Your task to perform on an android device: Go to network settings Image 0: 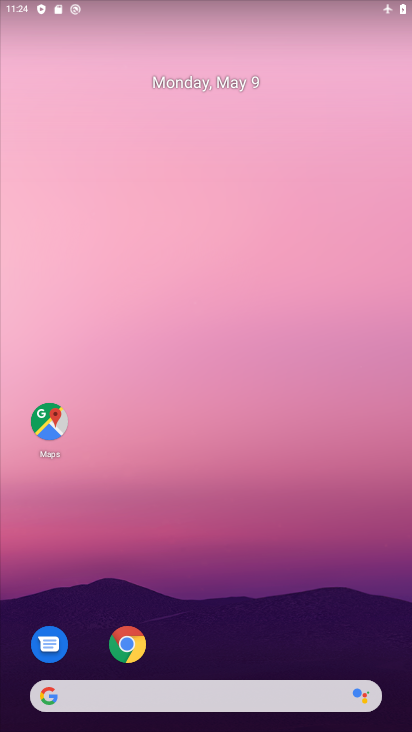
Step 0: drag from (227, 621) to (250, 186)
Your task to perform on an android device: Go to network settings Image 1: 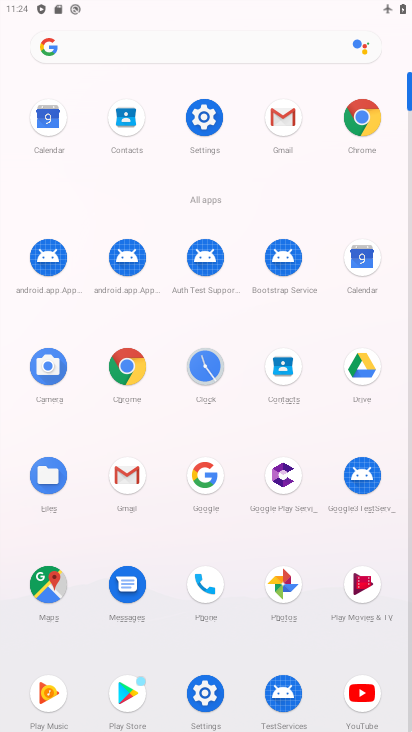
Step 1: click (216, 122)
Your task to perform on an android device: Go to network settings Image 2: 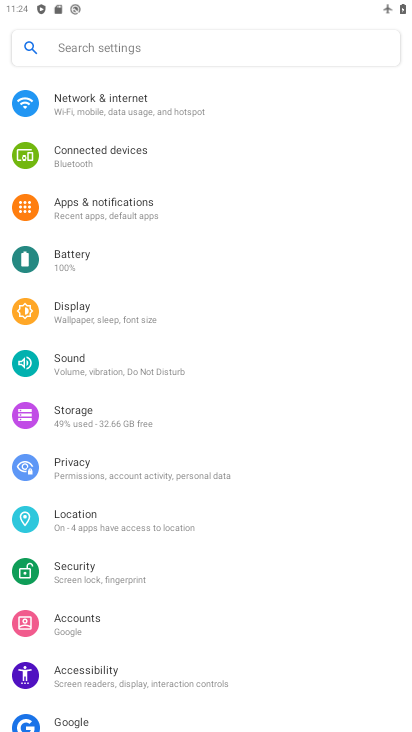
Step 2: click (156, 111)
Your task to perform on an android device: Go to network settings Image 3: 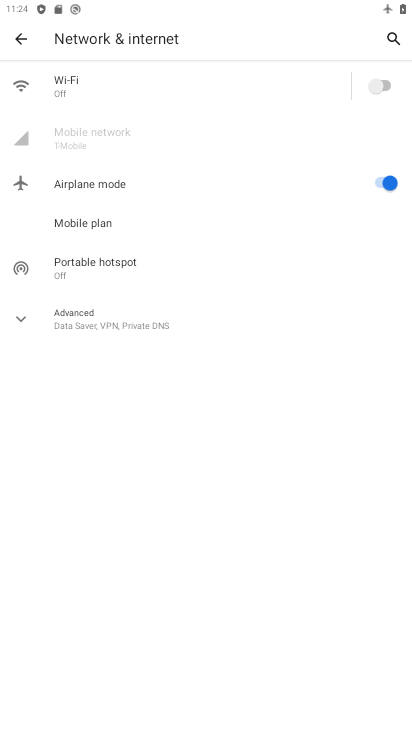
Step 3: click (103, 123)
Your task to perform on an android device: Go to network settings Image 4: 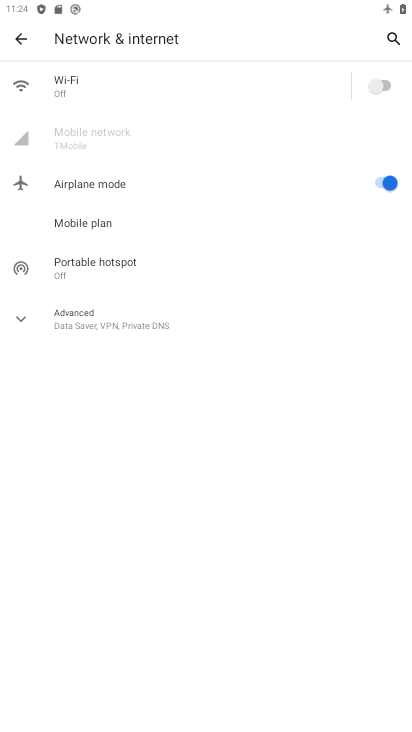
Step 4: task complete